Your task to perform on an android device: toggle priority inbox in the gmail app Image 0: 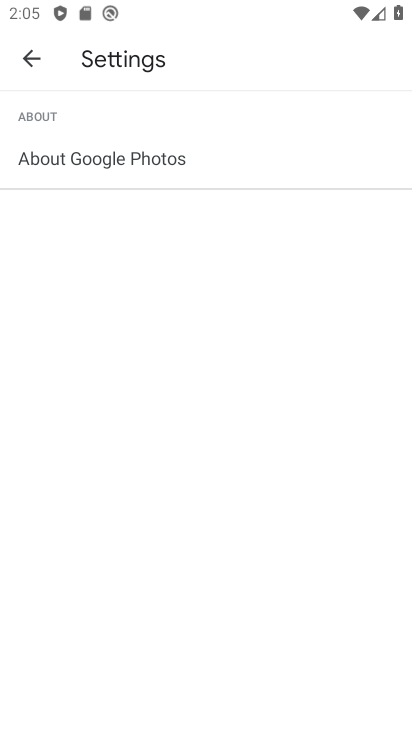
Step 0: press home button
Your task to perform on an android device: toggle priority inbox in the gmail app Image 1: 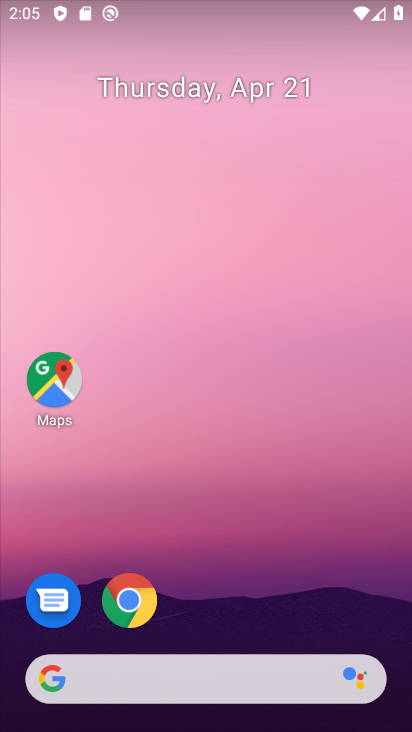
Step 1: drag from (261, 593) to (288, 119)
Your task to perform on an android device: toggle priority inbox in the gmail app Image 2: 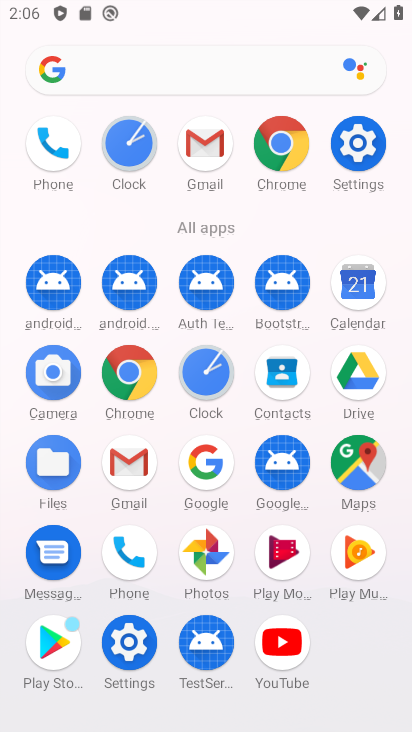
Step 2: click (209, 133)
Your task to perform on an android device: toggle priority inbox in the gmail app Image 3: 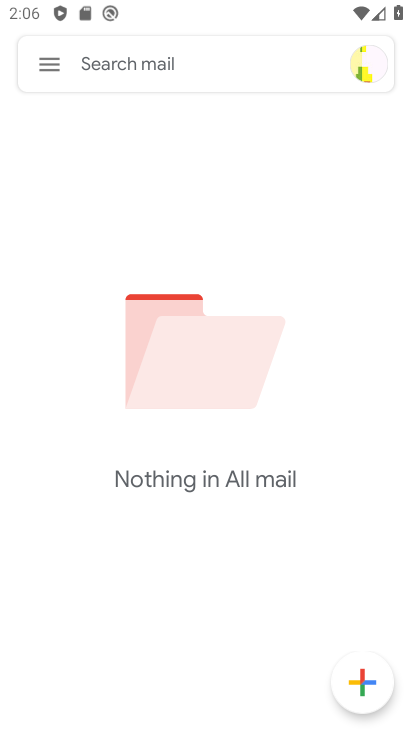
Step 3: click (51, 53)
Your task to perform on an android device: toggle priority inbox in the gmail app Image 4: 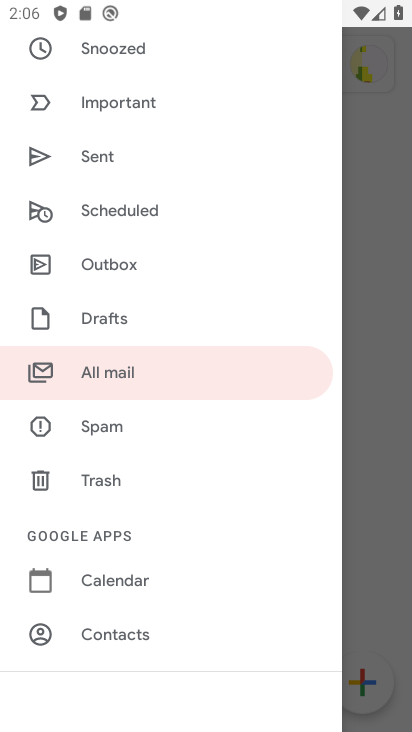
Step 4: drag from (145, 576) to (211, 211)
Your task to perform on an android device: toggle priority inbox in the gmail app Image 5: 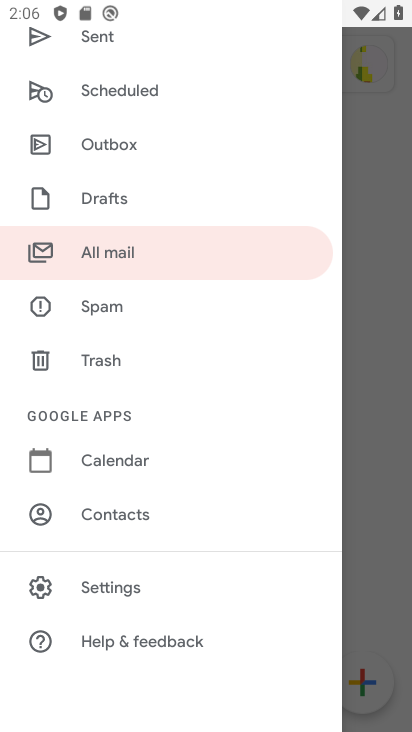
Step 5: click (109, 589)
Your task to perform on an android device: toggle priority inbox in the gmail app Image 6: 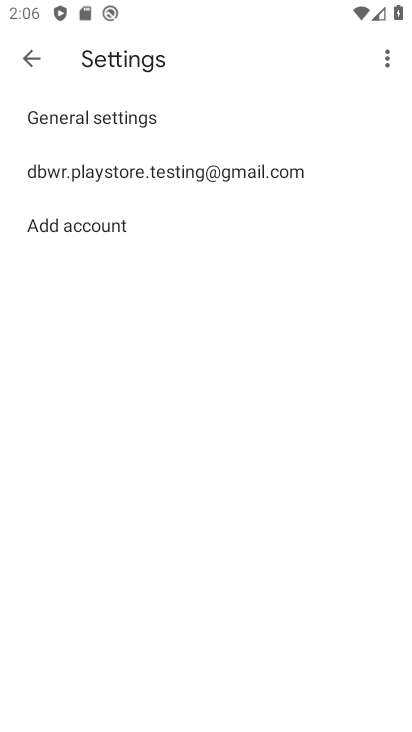
Step 6: click (209, 186)
Your task to perform on an android device: toggle priority inbox in the gmail app Image 7: 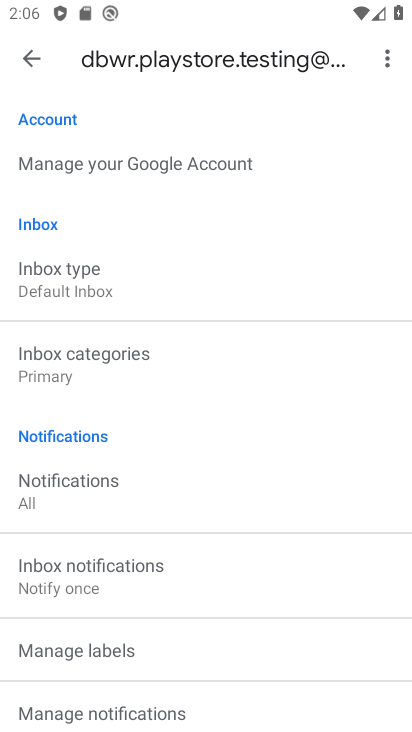
Step 7: drag from (166, 638) to (265, 221)
Your task to perform on an android device: toggle priority inbox in the gmail app Image 8: 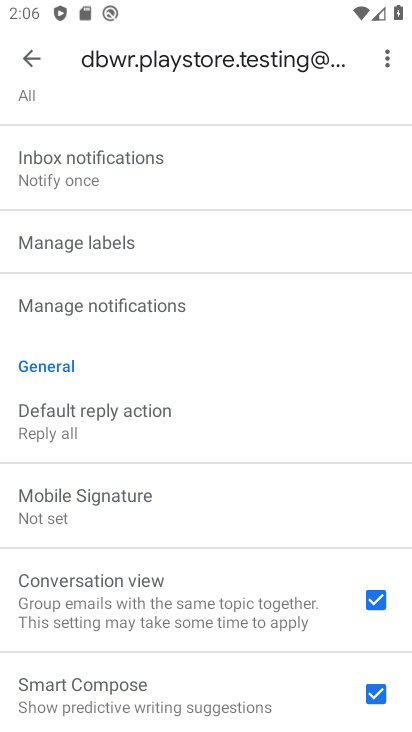
Step 8: drag from (218, 313) to (242, 561)
Your task to perform on an android device: toggle priority inbox in the gmail app Image 9: 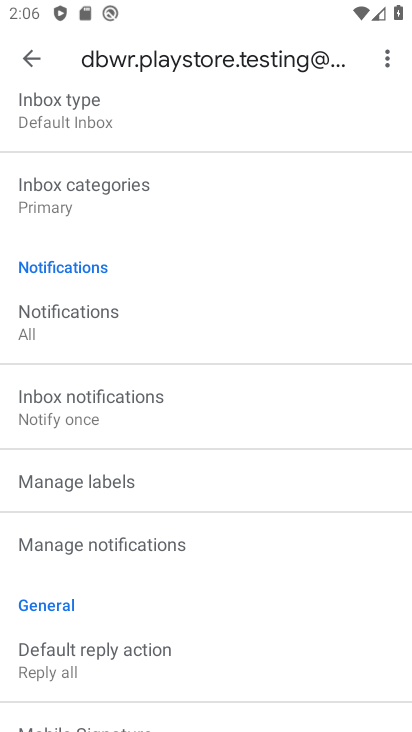
Step 9: drag from (154, 266) to (186, 512)
Your task to perform on an android device: toggle priority inbox in the gmail app Image 10: 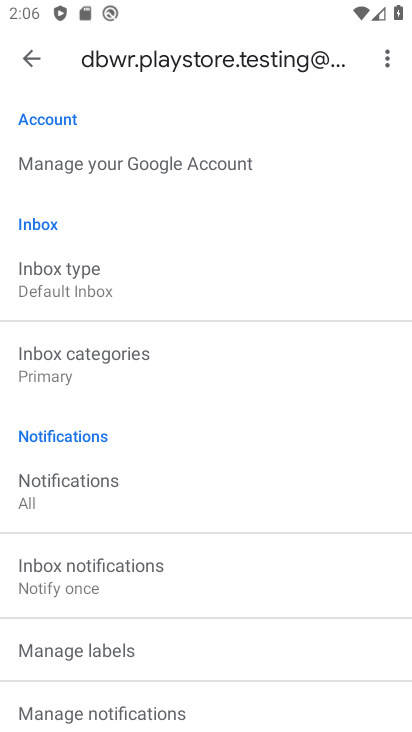
Step 10: click (90, 282)
Your task to perform on an android device: toggle priority inbox in the gmail app Image 11: 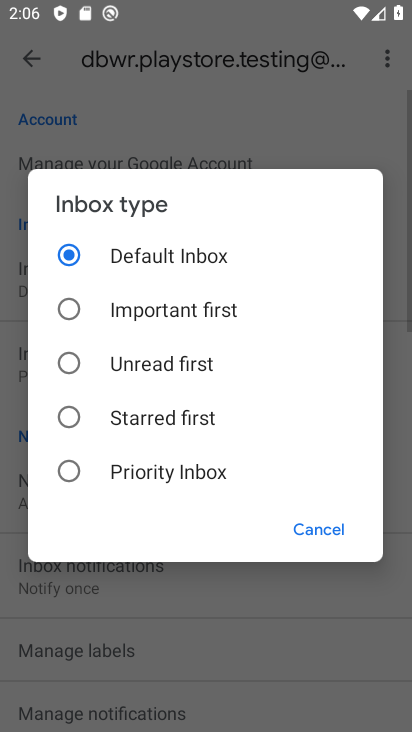
Step 11: click (122, 311)
Your task to perform on an android device: toggle priority inbox in the gmail app Image 12: 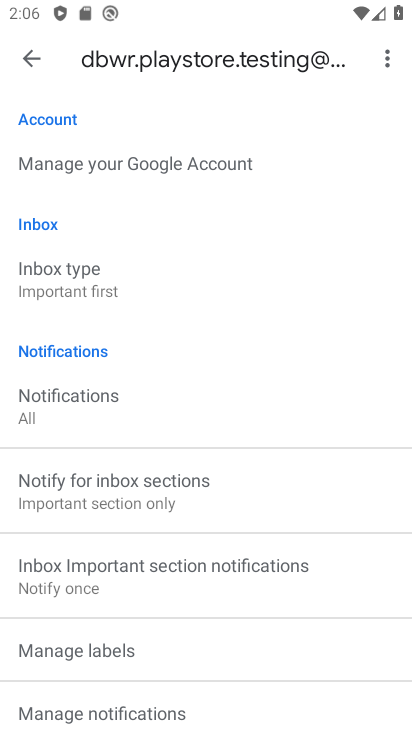
Step 12: task complete